Your task to perform on an android device: Go to notification settings Image 0: 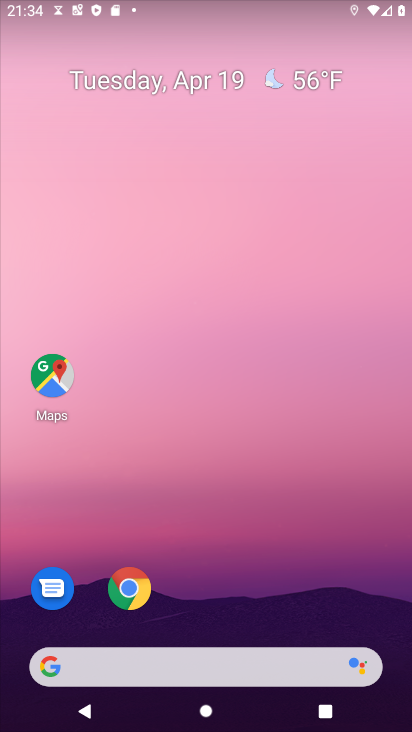
Step 0: drag from (277, 626) to (306, 43)
Your task to perform on an android device: Go to notification settings Image 1: 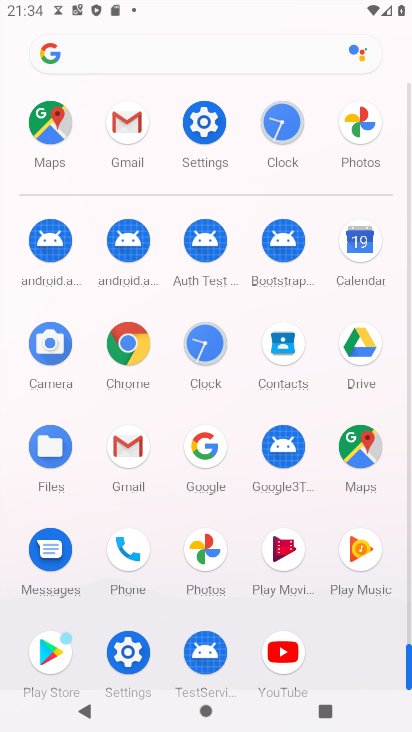
Step 1: click (207, 122)
Your task to perform on an android device: Go to notification settings Image 2: 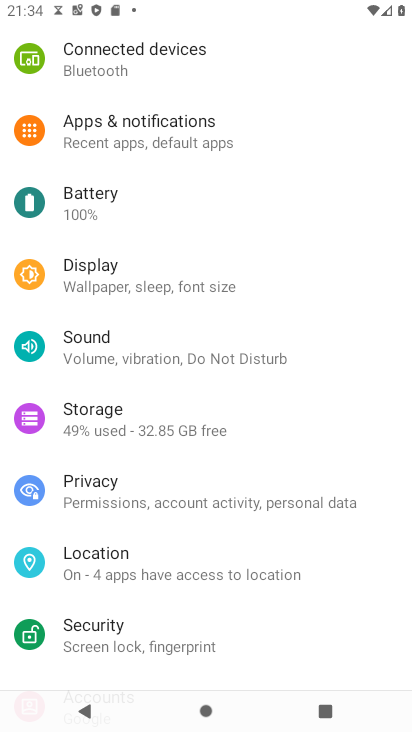
Step 2: click (207, 122)
Your task to perform on an android device: Go to notification settings Image 3: 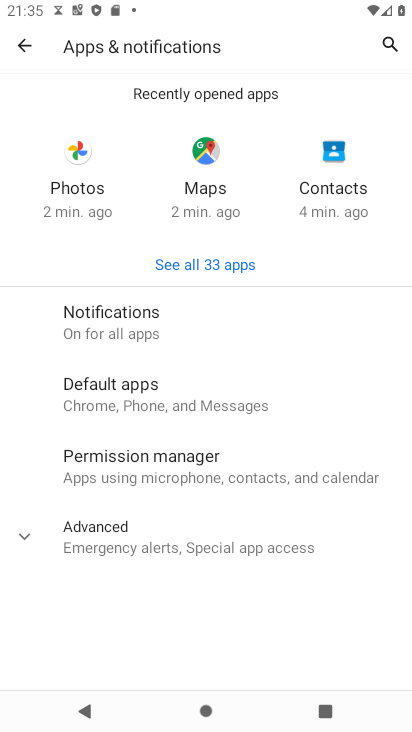
Step 3: task complete